Your task to perform on an android device: change the clock display to analog Image 0: 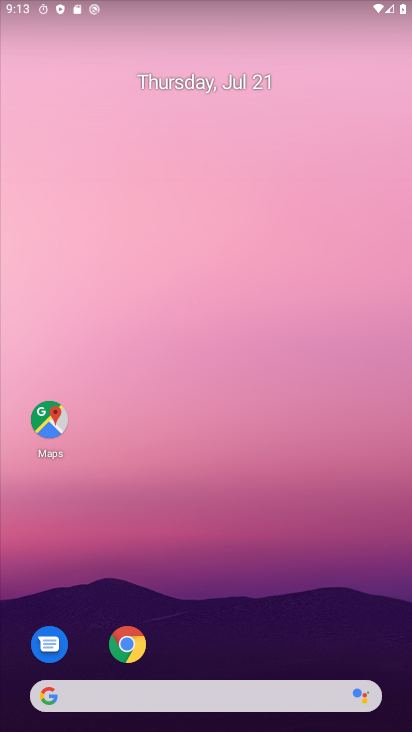
Step 0: press back button
Your task to perform on an android device: change the clock display to analog Image 1: 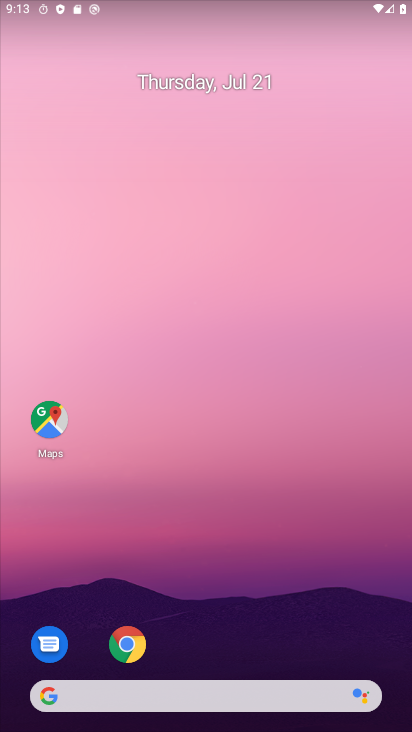
Step 1: drag from (246, 570) to (274, 410)
Your task to perform on an android device: change the clock display to analog Image 2: 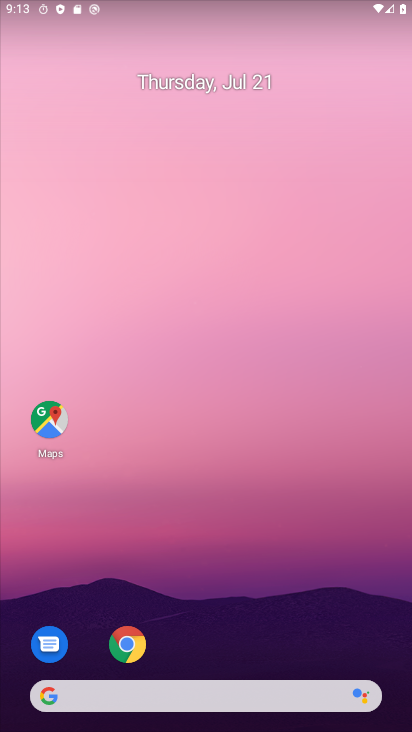
Step 2: drag from (229, 600) to (200, 197)
Your task to perform on an android device: change the clock display to analog Image 3: 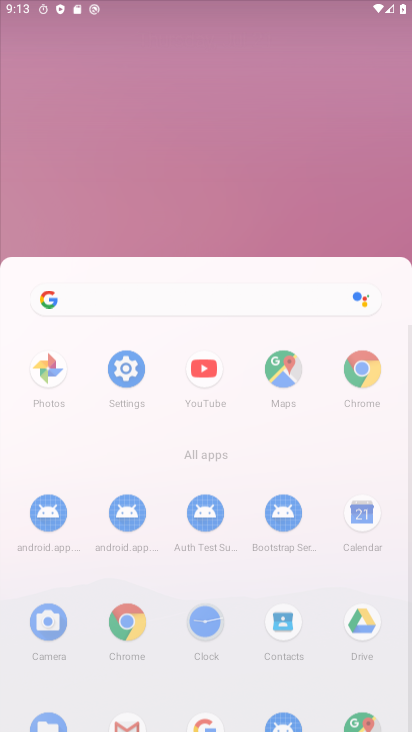
Step 3: drag from (164, 566) to (161, 254)
Your task to perform on an android device: change the clock display to analog Image 4: 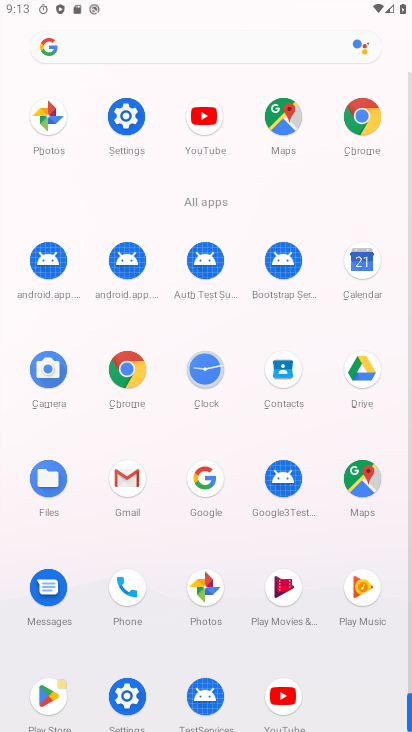
Step 4: click (190, 375)
Your task to perform on an android device: change the clock display to analog Image 5: 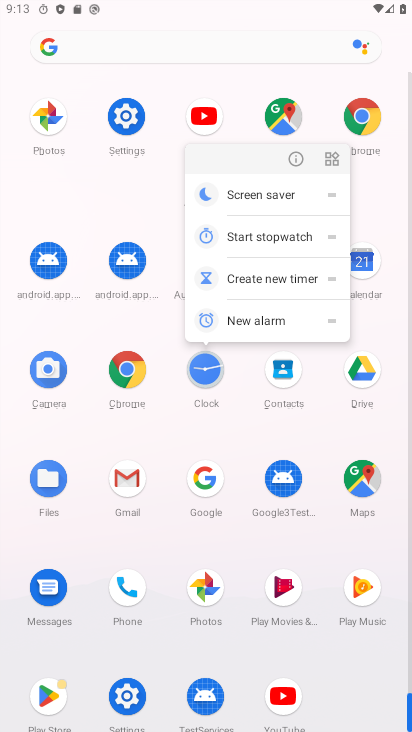
Step 5: click (207, 367)
Your task to perform on an android device: change the clock display to analog Image 6: 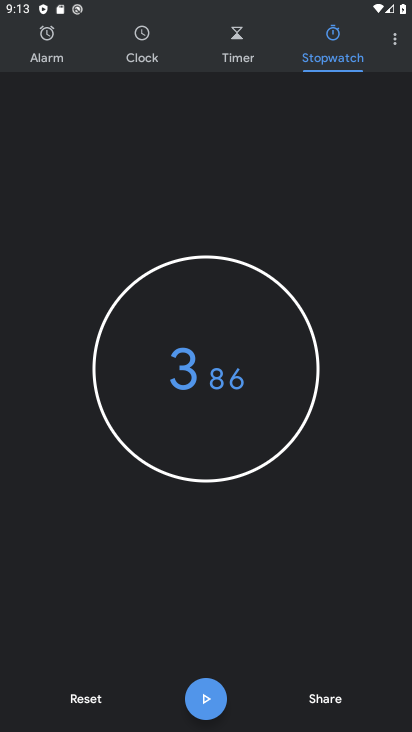
Step 6: click (387, 47)
Your task to perform on an android device: change the clock display to analog Image 7: 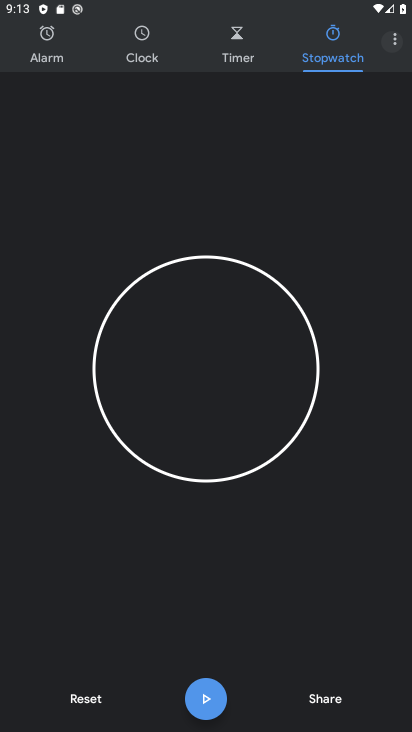
Step 7: click (387, 47)
Your task to perform on an android device: change the clock display to analog Image 8: 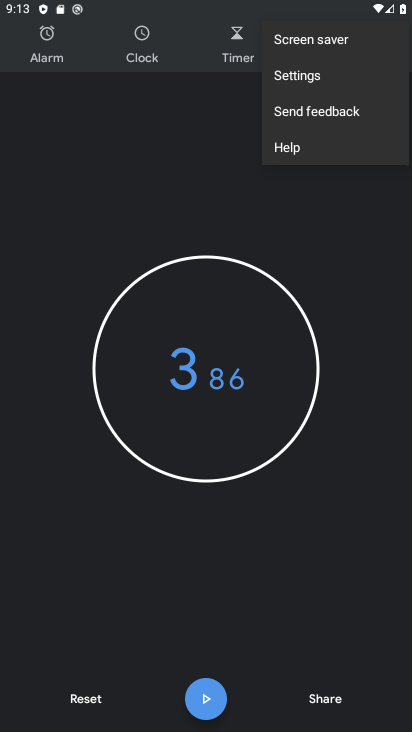
Step 8: click (313, 76)
Your task to perform on an android device: change the clock display to analog Image 9: 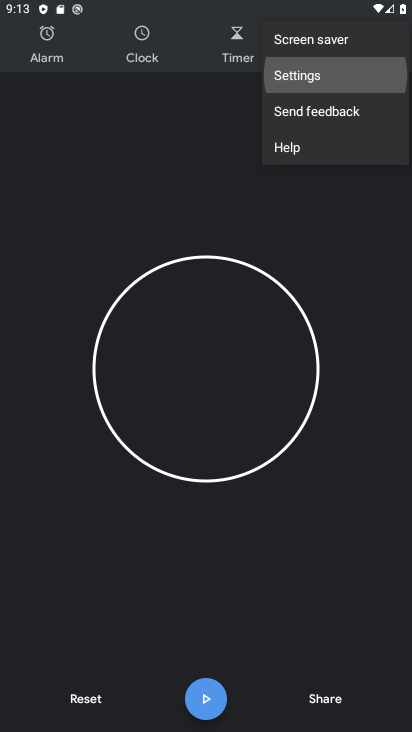
Step 9: click (313, 76)
Your task to perform on an android device: change the clock display to analog Image 10: 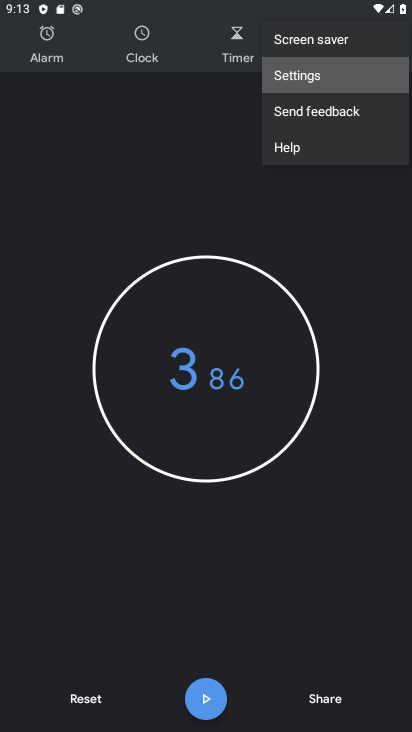
Step 10: click (312, 76)
Your task to perform on an android device: change the clock display to analog Image 11: 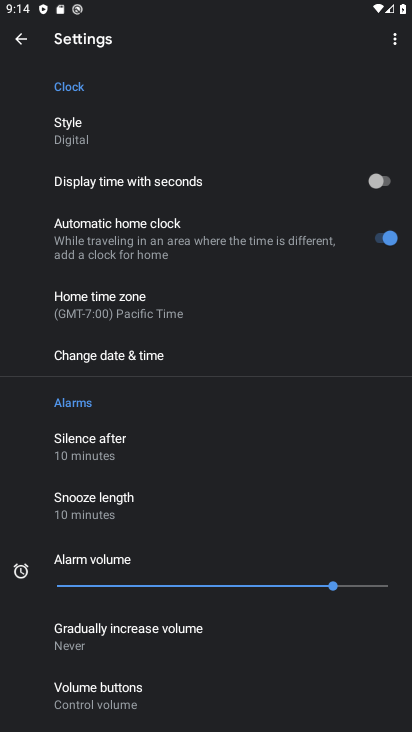
Step 11: click (65, 129)
Your task to perform on an android device: change the clock display to analog Image 12: 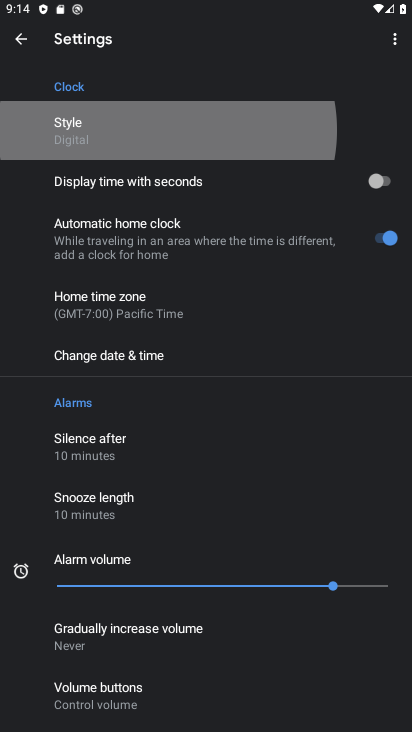
Step 12: click (65, 129)
Your task to perform on an android device: change the clock display to analog Image 13: 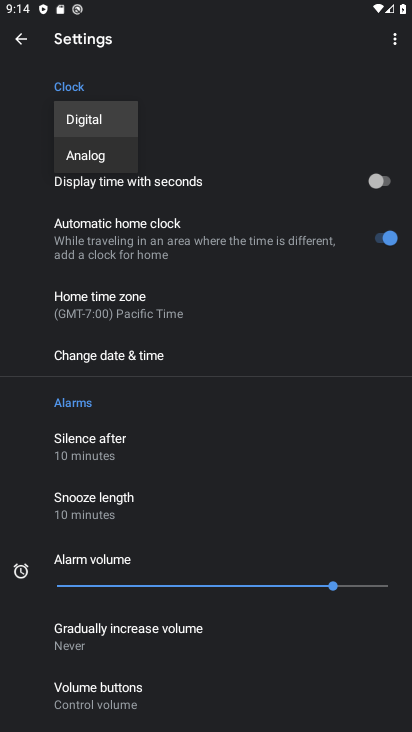
Step 13: click (65, 154)
Your task to perform on an android device: change the clock display to analog Image 14: 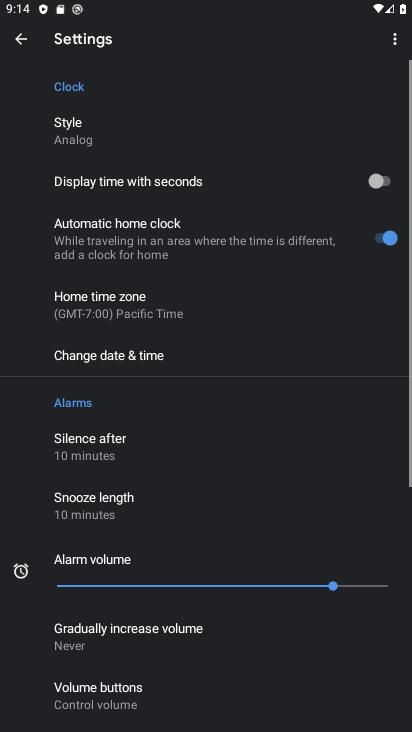
Step 14: task complete